Your task to perform on an android device: turn vacation reply on in the gmail app Image 0: 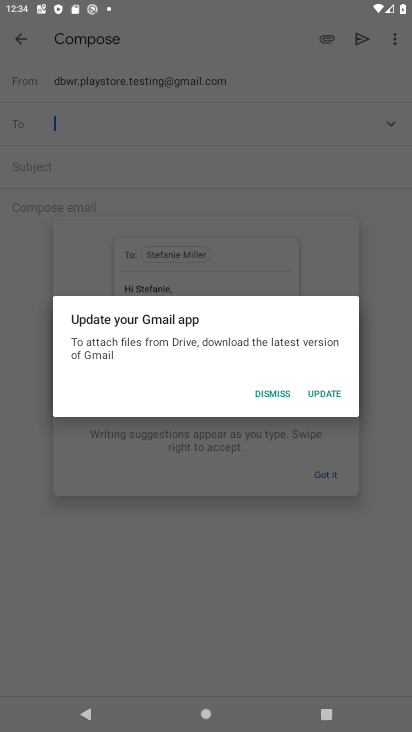
Step 0: press home button
Your task to perform on an android device: turn vacation reply on in the gmail app Image 1: 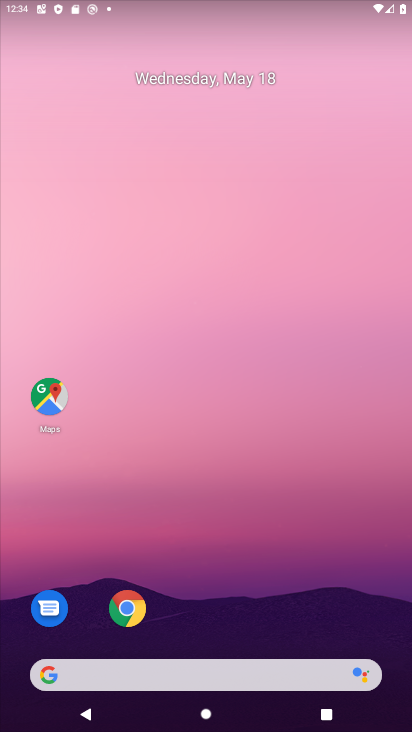
Step 1: drag from (240, 716) to (241, 252)
Your task to perform on an android device: turn vacation reply on in the gmail app Image 2: 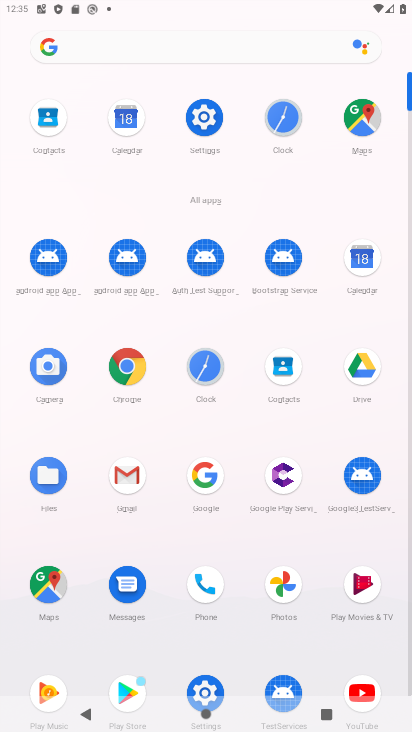
Step 2: click (126, 467)
Your task to perform on an android device: turn vacation reply on in the gmail app Image 3: 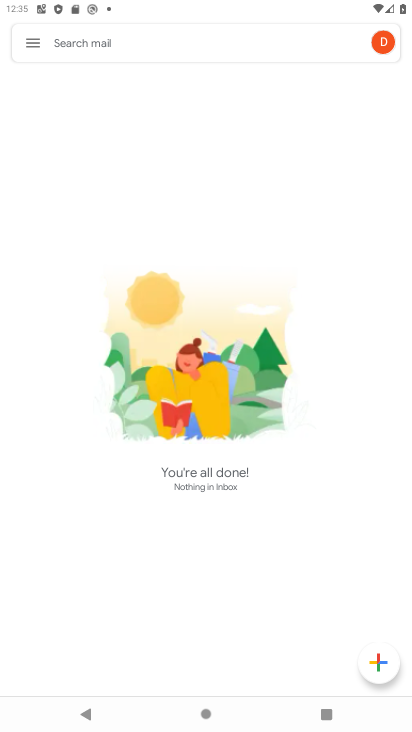
Step 3: click (21, 38)
Your task to perform on an android device: turn vacation reply on in the gmail app Image 4: 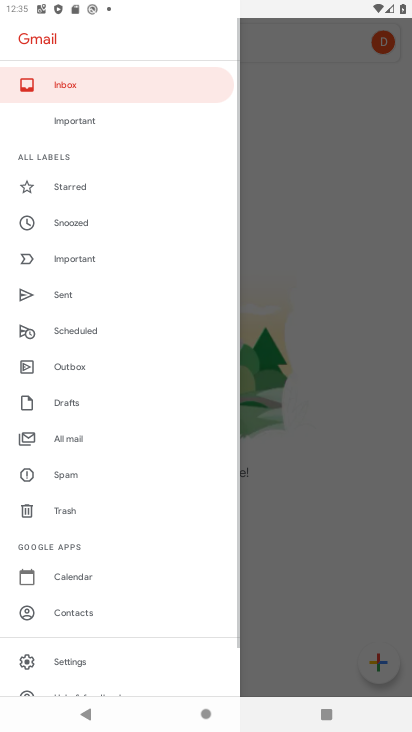
Step 4: click (65, 662)
Your task to perform on an android device: turn vacation reply on in the gmail app Image 5: 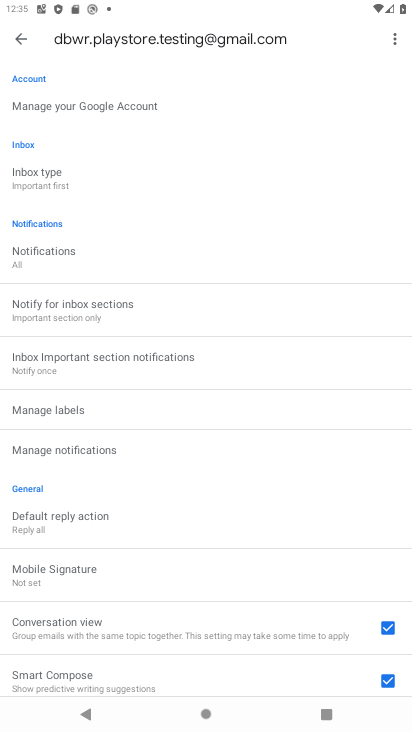
Step 5: drag from (188, 653) to (210, 236)
Your task to perform on an android device: turn vacation reply on in the gmail app Image 6: 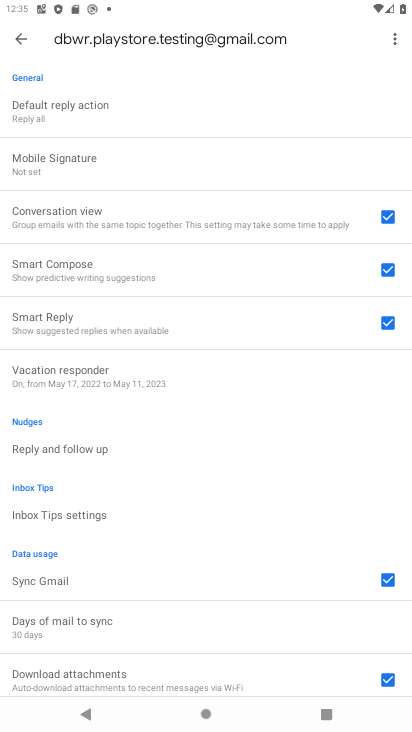
Step 6: click (159, 380)
Your task to perform on an android device: turn vacation reply on in the gmail app Image 7: 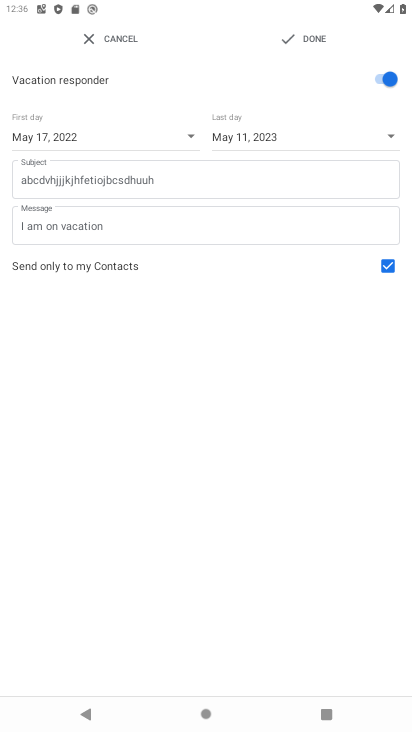
Step 7: click (296, 40)
Your task to perform on an android device: turn vacation reply on in the gmail app Image 8: 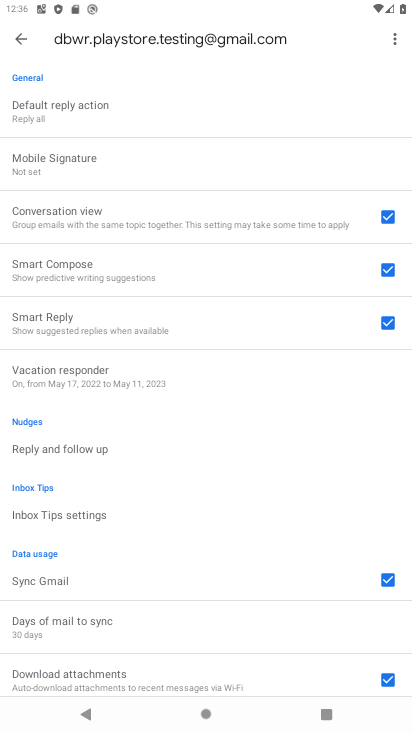
Step 8: task complete